Your task to perform on an android device: Go to Yahoo.com Image 0: 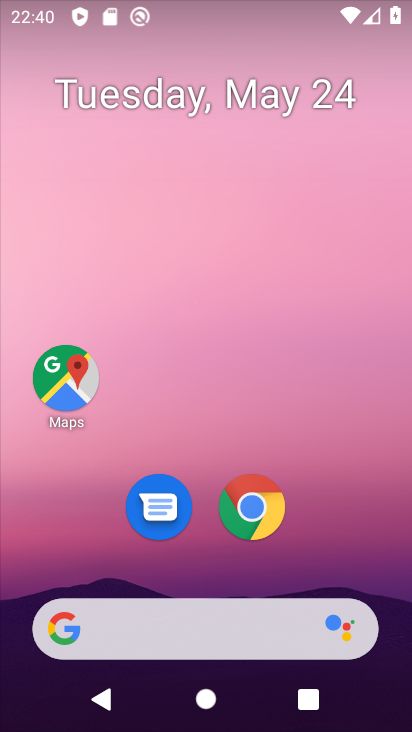
Step 0: drag from (317, 568) to (289, 46)
Your task to perform on an android device: Go to Yahoo.com Image 1: 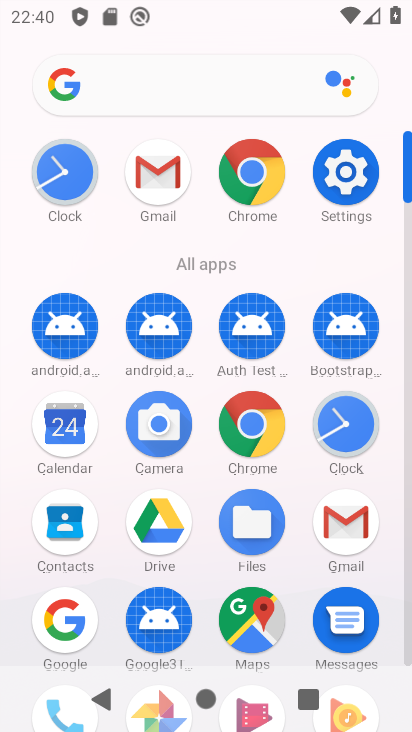
Step 1: click (236, 430)
Your task to perform on an android device: Go to Yahoo.com Image 2: 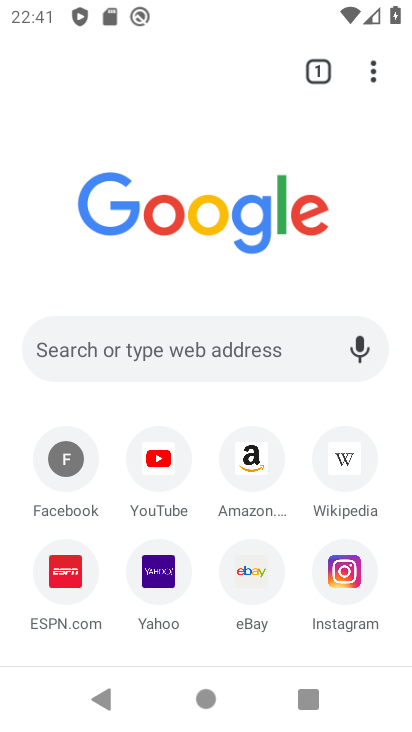
Step 2: click (167, 593)
Your task to perform on an android device: Go to Yahoo.com Image 3: 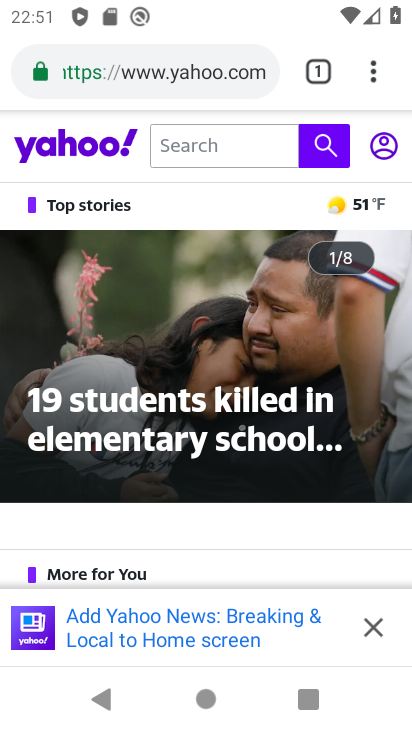
Step 3: task complete